Your task to perform on an android device: Open Google Maps and go to "Timeline" Image 0: 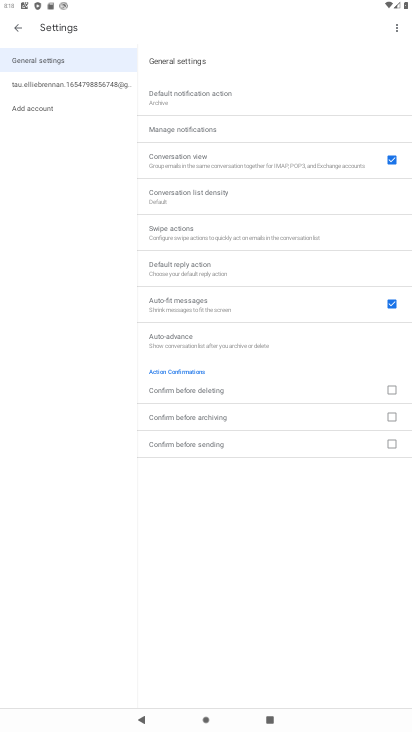
Step 0: press home button
Your task to perform on an android device: Open Google Maps and go to "Timeline" Image 1: 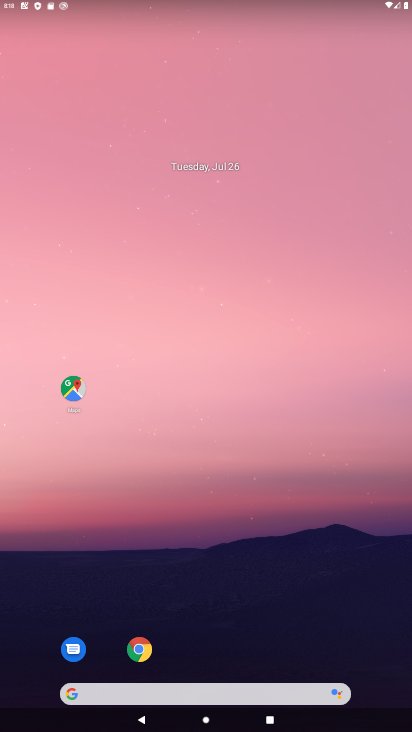
Step 1: click (65, 395)
Your task to perform on an android device: Open Google Maps and go to "Timeline" Image 2: 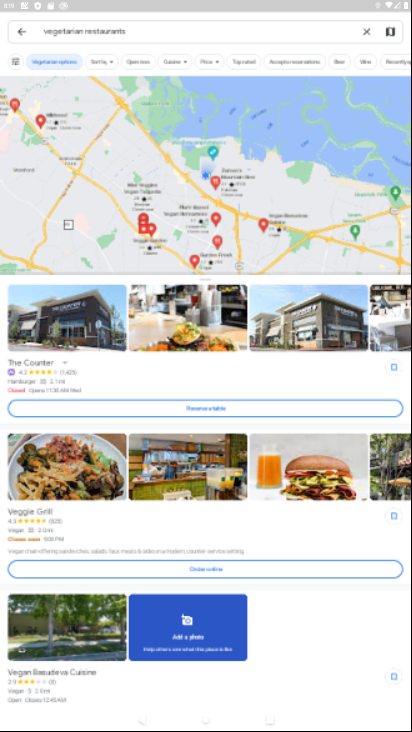
Step 2: click (17, 26)
Your task to perform on an android device: Open Google Maps and go to "Timeline" Image 3: 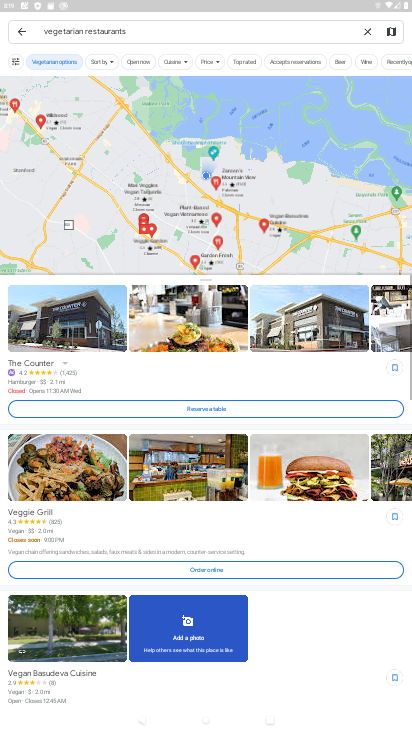
Step 3: click (19, 35)
Your task to perform on an android device: Open Google Maps and go to "Timeline" Image 4: 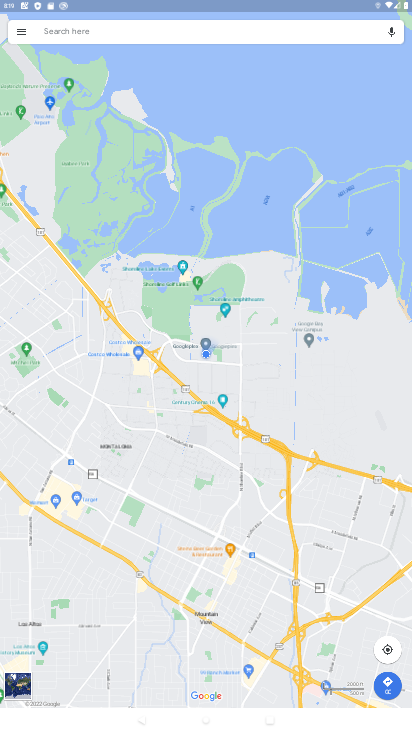
Step 4: click (19, 35)
Your task to perform on an android device: Open Google Maps and go to "Timeline" Image 5: 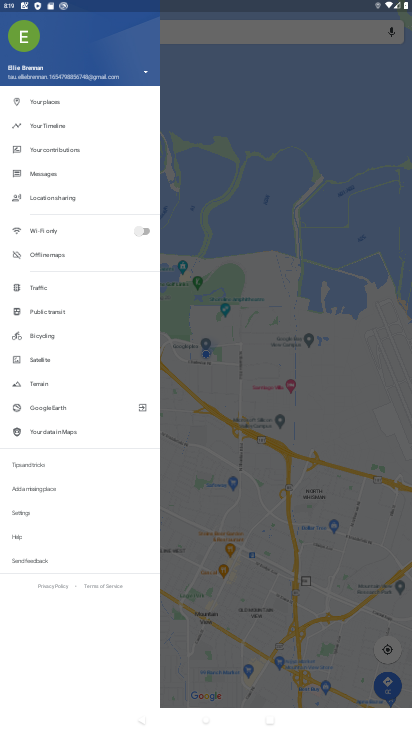
Step 5: click (72, 124)
Your task to perform on an android device: Open Google Maps and go to "Timeline" Image 6: 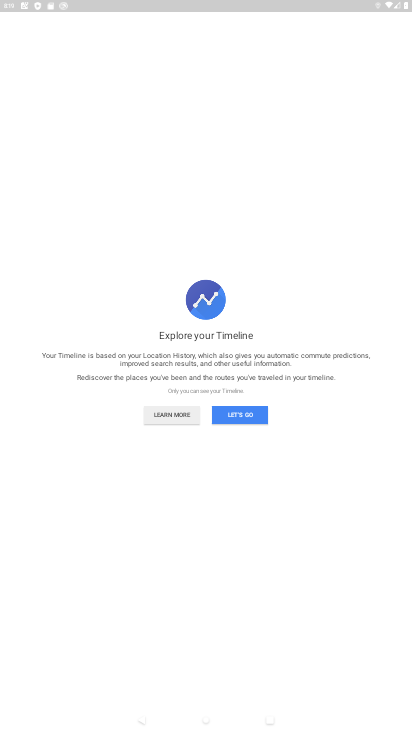
Step 6: click (249, 419)
Your task to perform on an android device: Open Google Maps and go to "Timeline" Image 7: 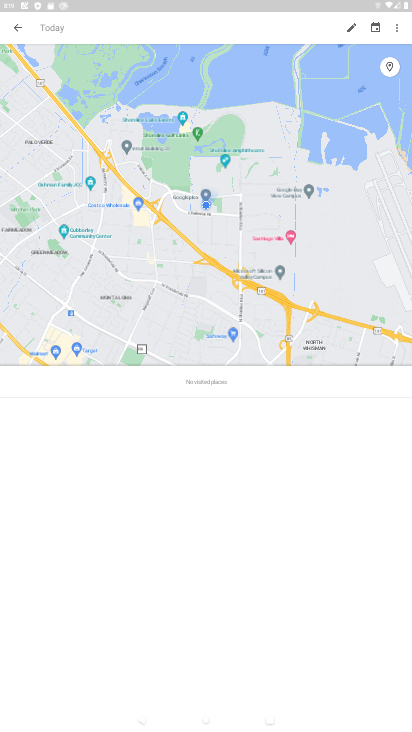
Step 7: task complete